Your task to perform on an android device: Go to Reddit.com Image 0: 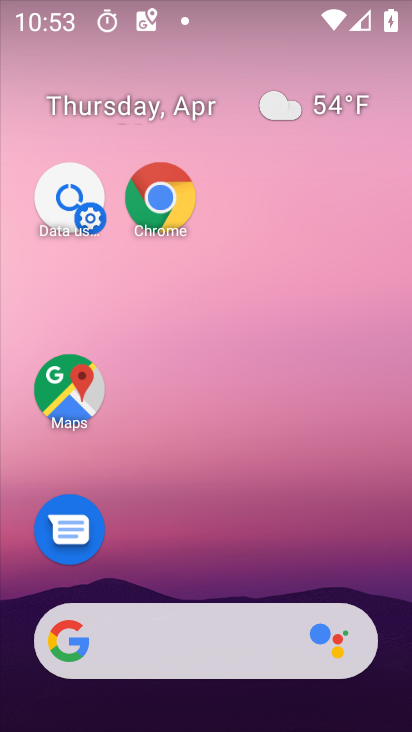
Step 0: click (134, 189)
Your task to perform on an android device: Go to Reddit.com Image 1: 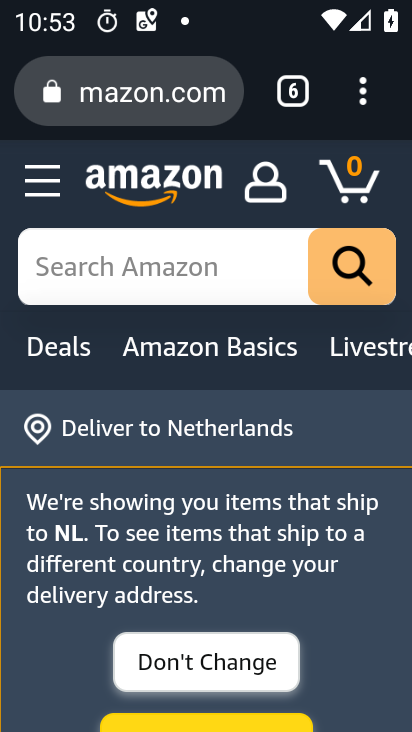
Step 1: click (298, 96)
Your task to perform on an android device: Go to Reddit.com Image 2: 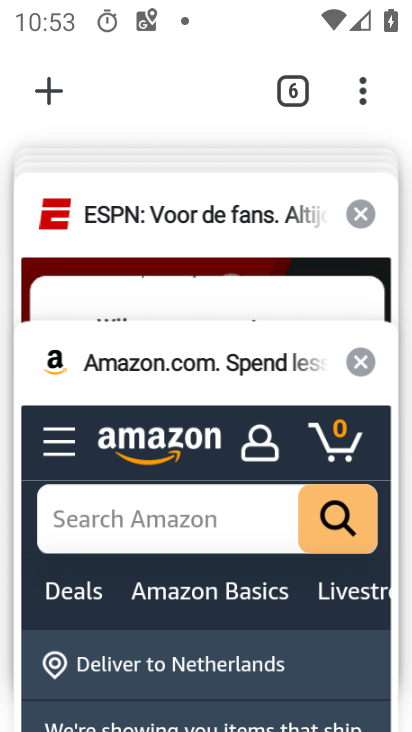
Step 2: click (48, 81)
Your task to perform on an android device: Go to Reddit.com Image 3: 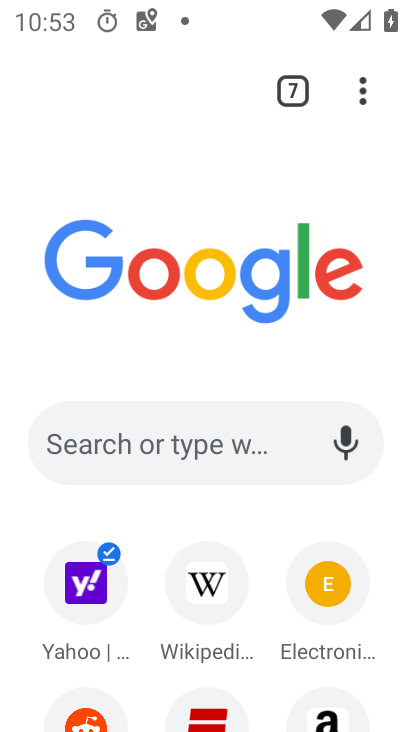
Step 3: click (79, 705)
Your task to perform on an android device: Go to Reddit.com Image 4: 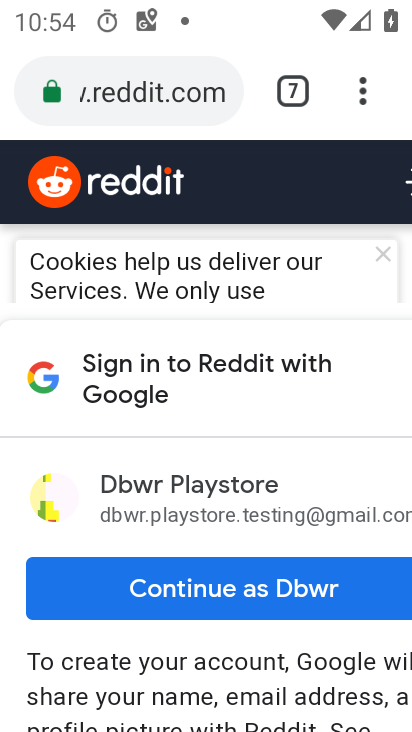
Step 4: task complete